Your task to perform on an android device: Go to ESPN.com Image 0: 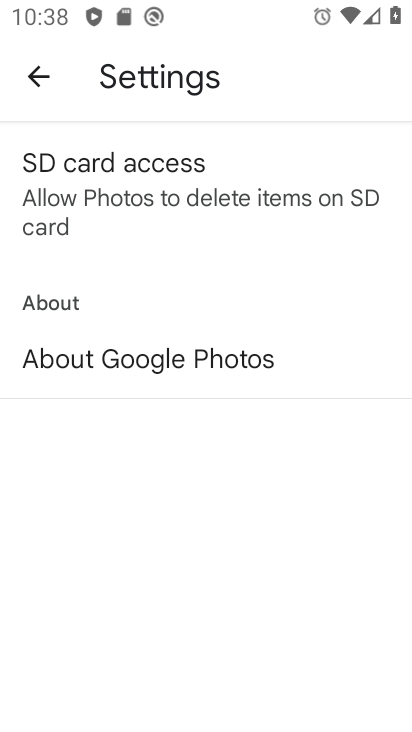
Step 0: press home button
Your task to perform on an android device: Go to ESPN.com Image 1: 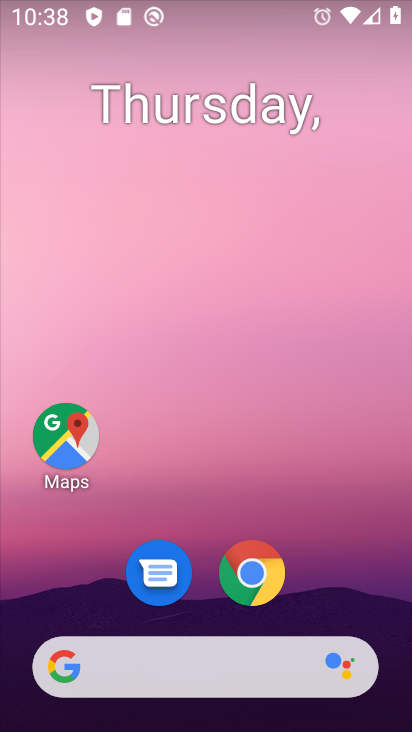
Step 1: click (253, 573)
Your task to perform on an android device: Go to ESPN.com Image 2: 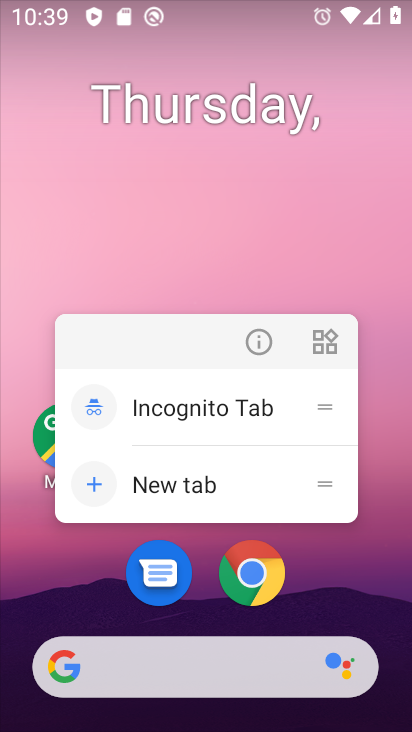
Step 2: click (256, 566)
Your task to perform on an android device: Go to ESPN.com Image 3: 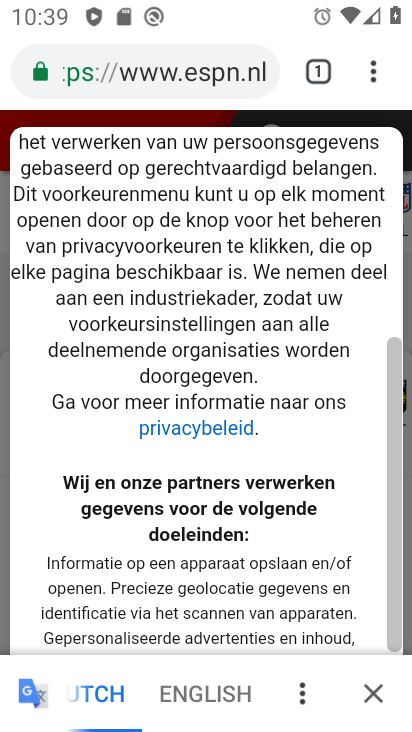
Step 3: task complete